Your task to perform on an android device: Clear the cart on amazon.com. Search for "macbook pro 13 inch" on amazon.com, select the first entry, add it to the cart, then select checkout. Image 0: 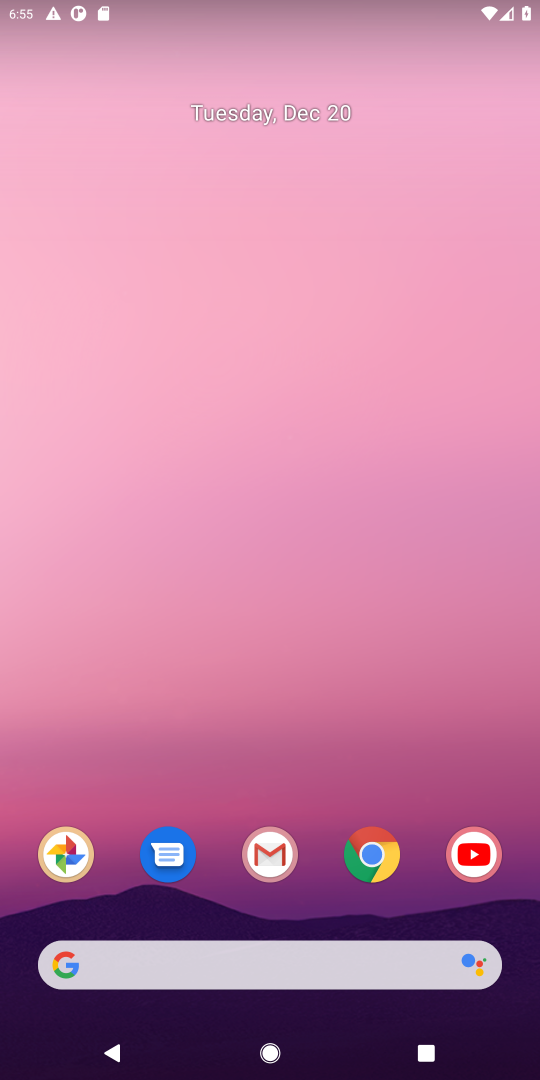
Step 0: click (385, 855)
Your task to perform on an android device: Clear the cart on amazon.com. Search for "macbook pro 13 inch" on amazon.com, select the first entry, add it to the cart, then select checkout. Image 1: 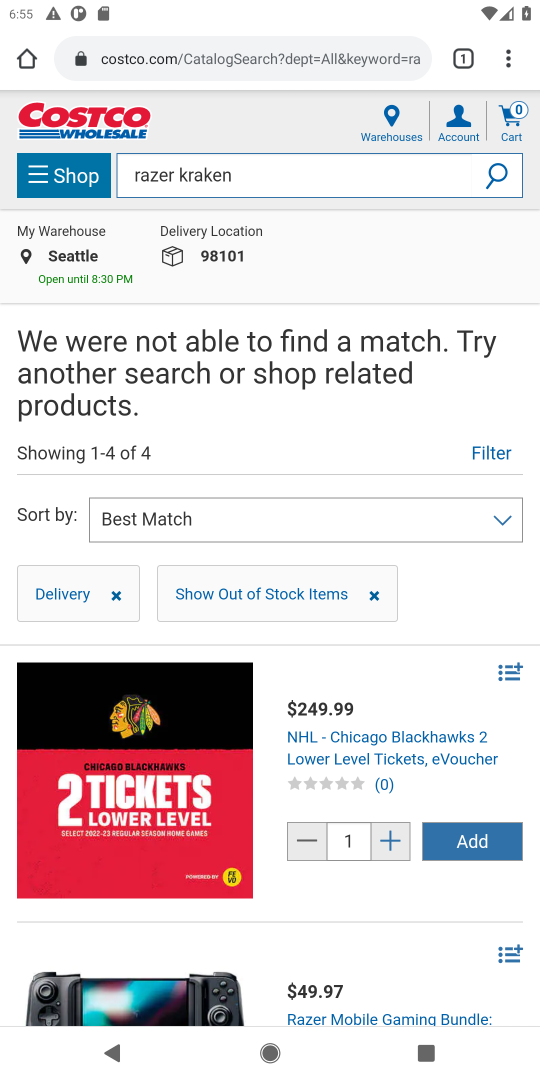
Step 1: click (249, 56)
Your task to perform on an android device: Clear the cart on amazon.com. Search for "macbook pro 13 inch" on amazon.com, select the first entry, add it to the cart, then select checkout. Image 2: 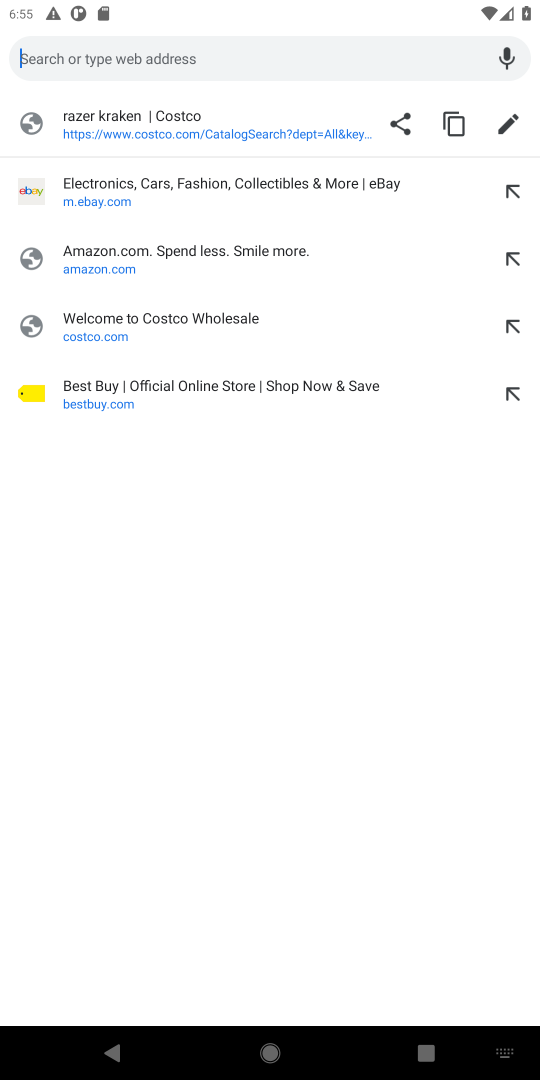
Step 2: click (93, 254)
Your task to perform on an android device: Clear the cart on amazon.com. Search for "macbook pro 13 inch" on amazon.com, select the first entry, add it to the cart, then select checkout. Image 3: 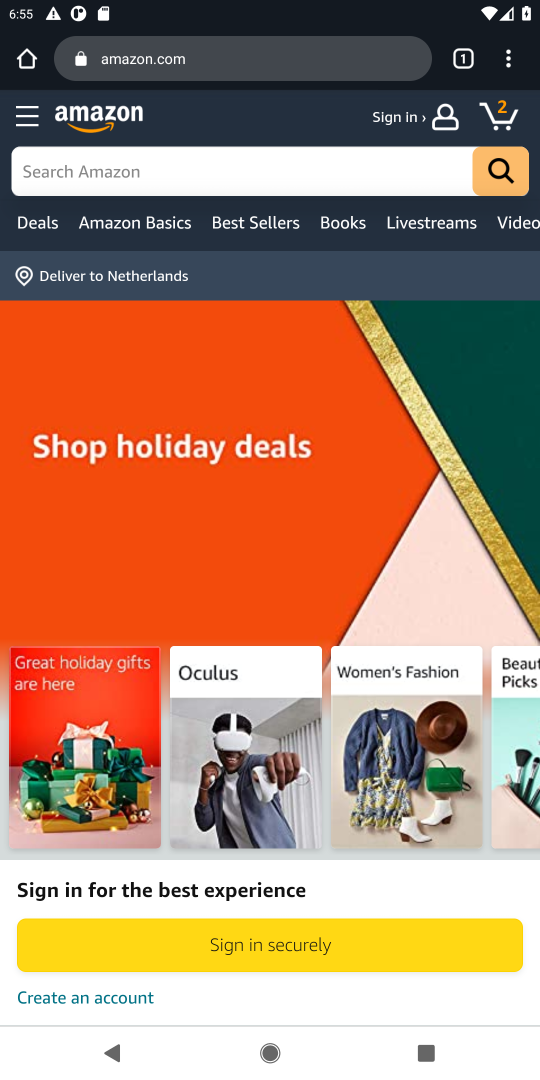
Step 3: click (506, 129)
Your task to perform on an android device: Clear the cart on amazon.com. Search for "macbook pro 13 inch" on amazon.com, select the first entry, add it to the cart, then select checkout. Image 4: 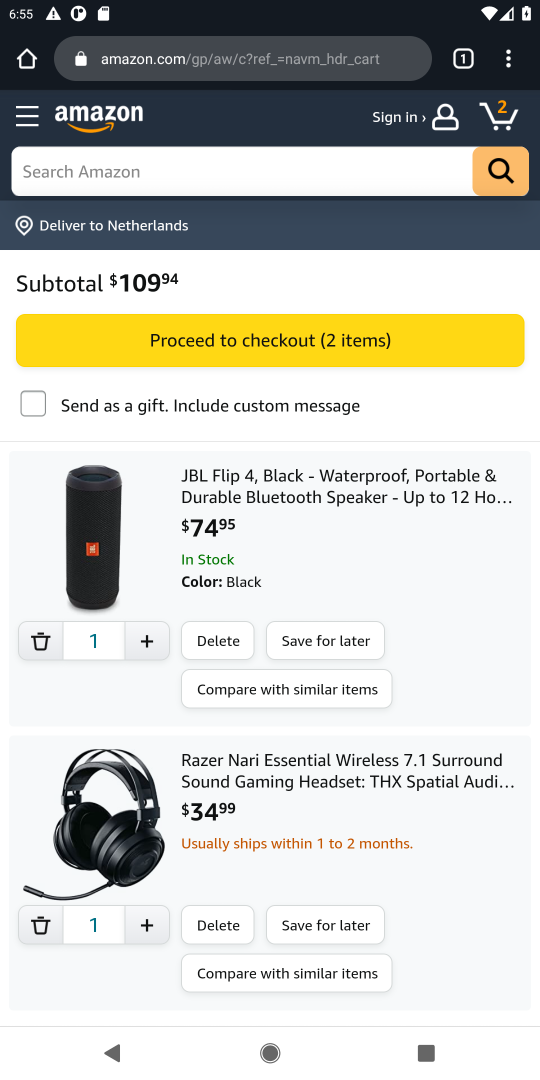
Step 4: click (221, 639)
Your task to perform on an android device: Clear the cart on amazon.com. Search for "macbook pro 13 inch" on amazon.com, select the first entry, add it to the cart, then select checkout. Image 5: 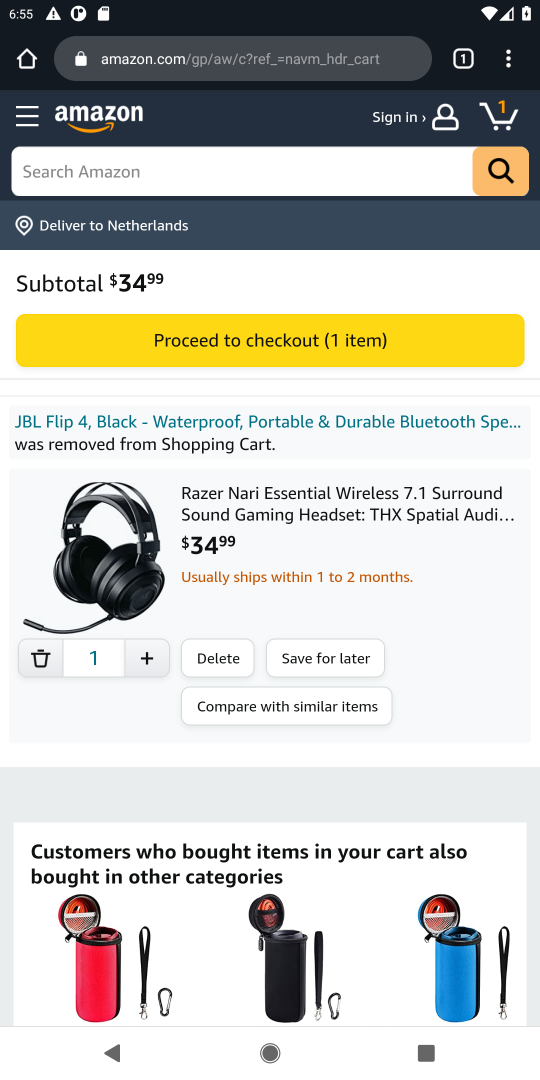
Step 5: click (216, 649)
Your task to perform on an android device: Clear the cart on amazon.com. Search for "macbook pro 13 inch" on amazon.com, select the first entry, add it to the cart, then select checkout. Image 6: 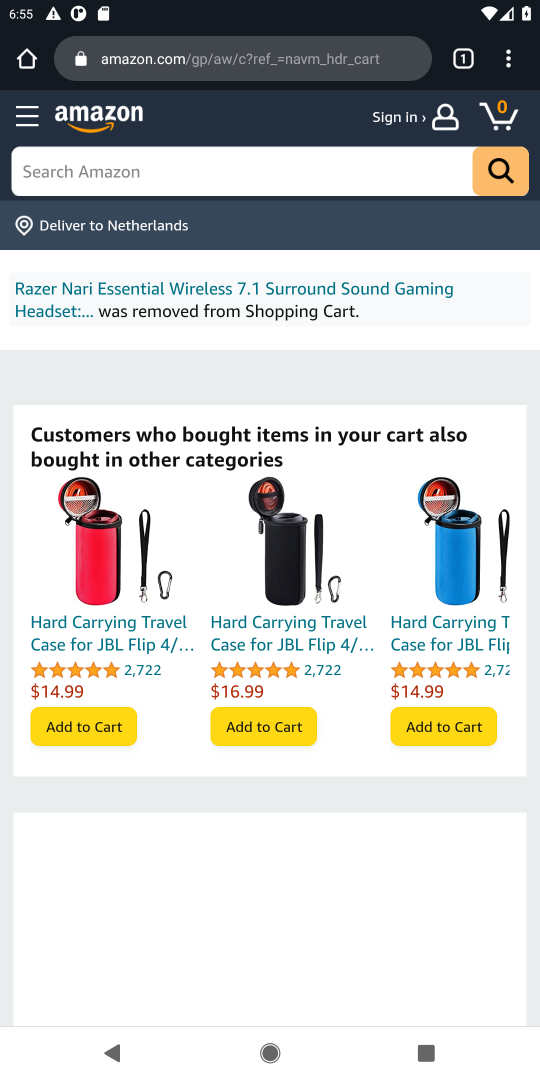
Step 6: click (63, 181)
Your task to perform on an android device: Clear the cart on amazon.com. Search for "macbook pro 13 inch" on amazon.com, select the first entry, add it to the cart, then select checkout. Image 7: 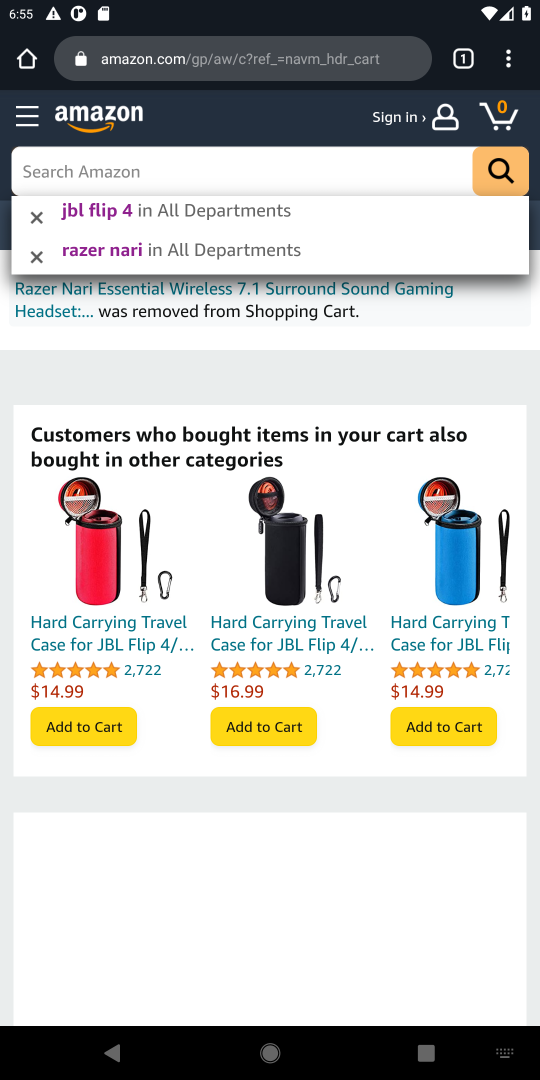
Step 7: type "macbook pro 13 inch"
Your task to perform on an android device: Clear the cart on amazon.com. Search for "macbook pro 13 inch" on amazon.com, select the first entry, add it to the cart, then select checkout. Image 8: 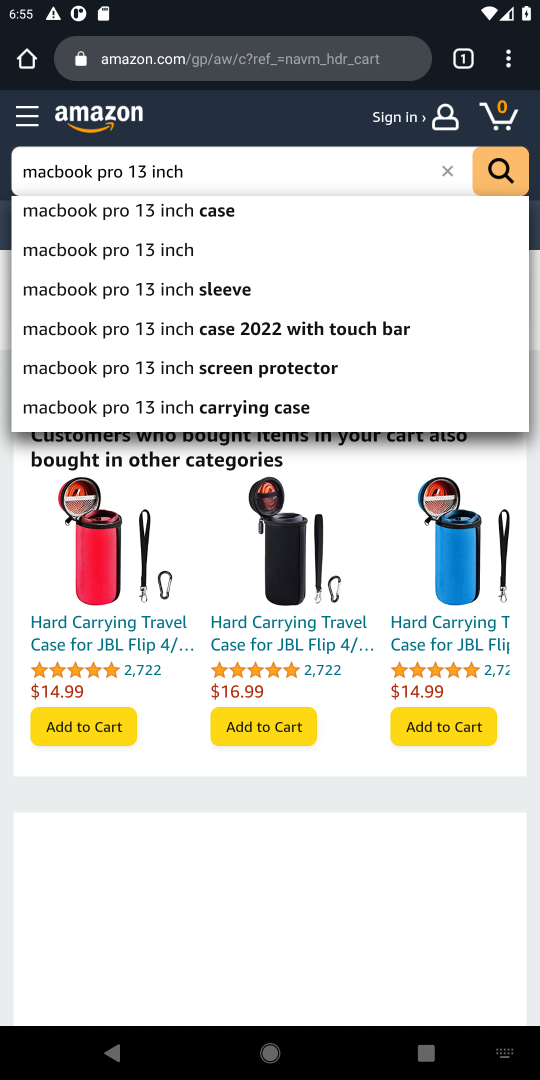
Step 8: click (132, 253)
Your task to perform on an android device: Clear the cart on amazon.com. Search for "macbook pro 13 inch" on amazon.com, select the first entry, add it to the cart, then select checkout. Image 9: 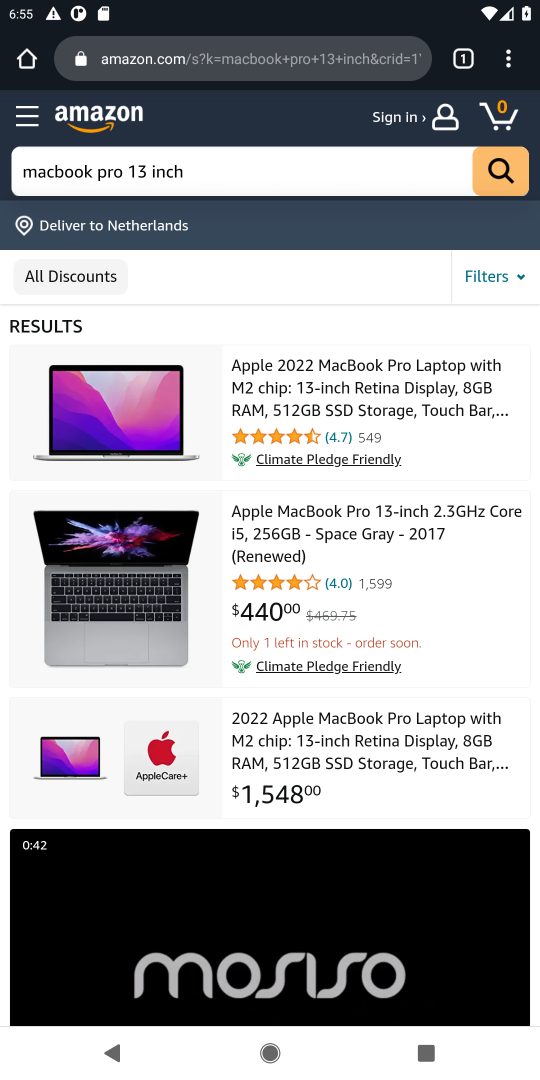
Step 9: drag from (209, 821) to (212, 462)
Your task to perform on an android device: Clear the cart on amazon.com. Search for "macbook pro 13 inch" on amazon.com, select the first entry, add it to the cart, then select checkout. Image 10: 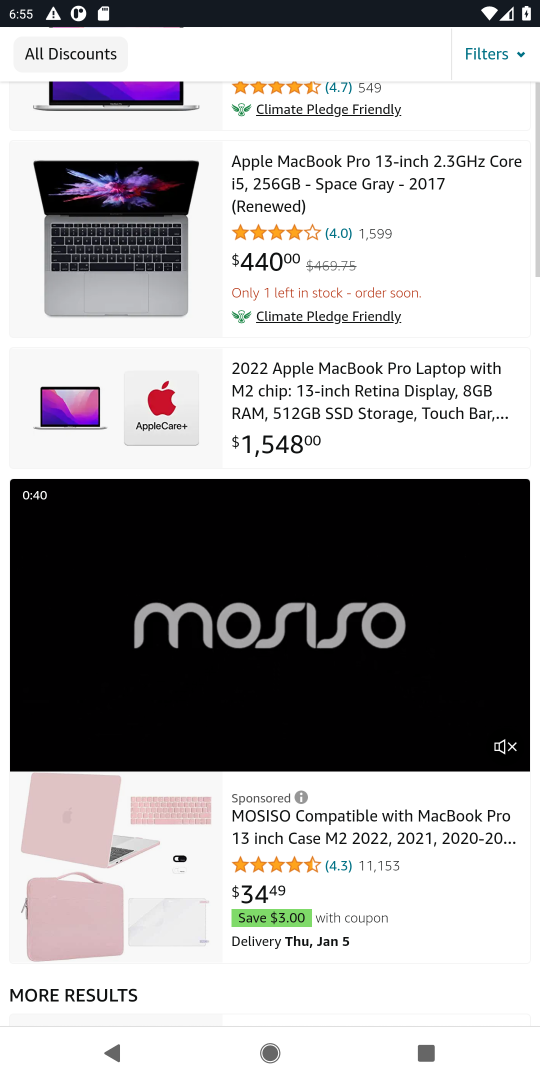
Step 10: drag from (209, 456) to (257, 737)
Your task to perform on an android device: Clear the cart on amazon.com. Search for "macbook pro 13 inch" on amazon.com, select the first entry, add it to the cart, then select checkout. Image 11: 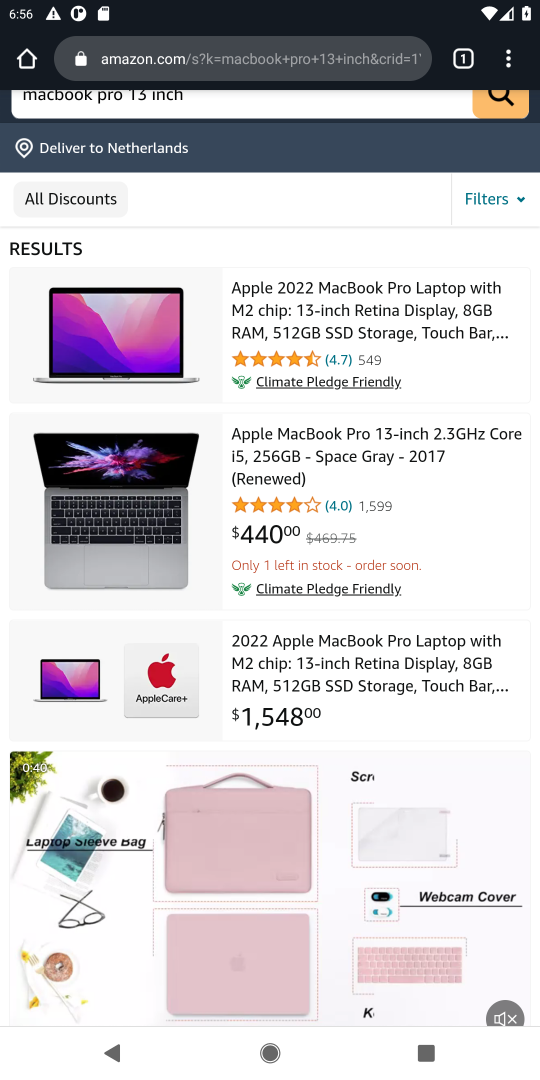
Step 11: click (325, 325)
Your task to perform on an android device: Clear the cart on amazon.com. Search for "macbook pro 13 inch" on amazon.com, select the first entry, add it to the cart, then select checkout. Image 12: 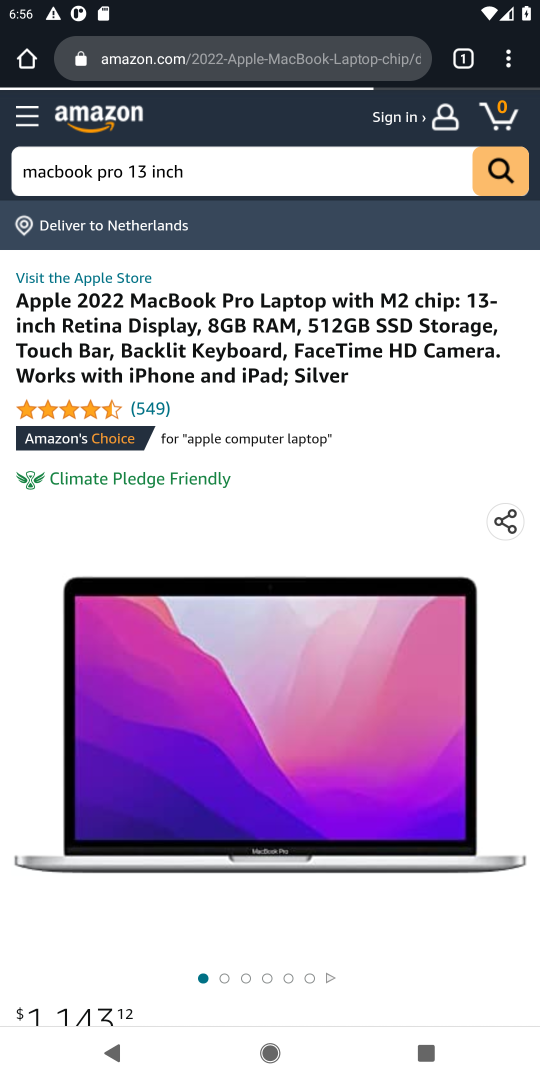
Step 12: task complete